Your task to perform on an android device: Go to settings Image 0: 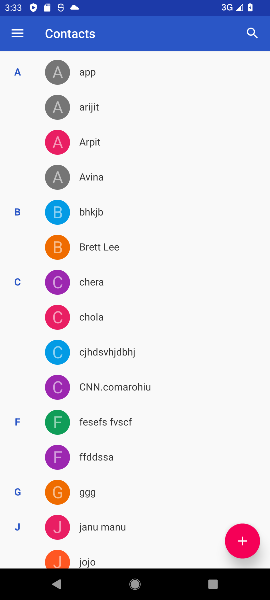
Step 0: press home button
Your task to perform on an android device: Go to settings Image 1: 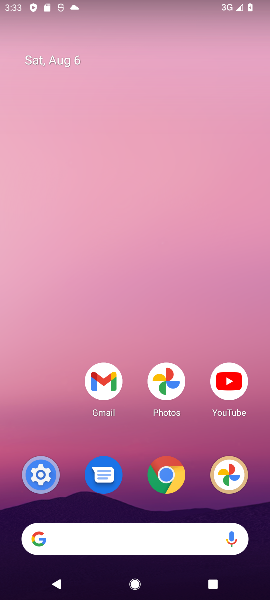
Step 1: click (42, 472)
Your task to perform on an android device: Go to settings Image 2: 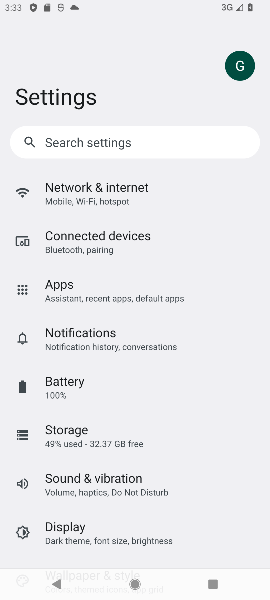
Step 2: task complete